Your task to perform on an android device: move a message to another label in the gmail app Image 0: 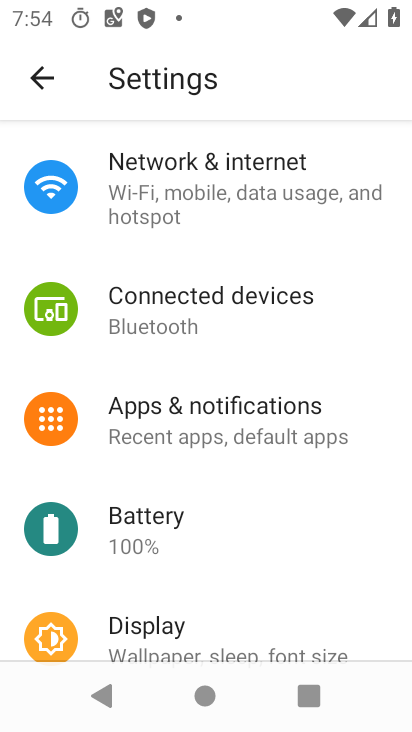
Step 0: press home button
Your task to perform on an android device: move a message to another label in the gmail app Image 1: 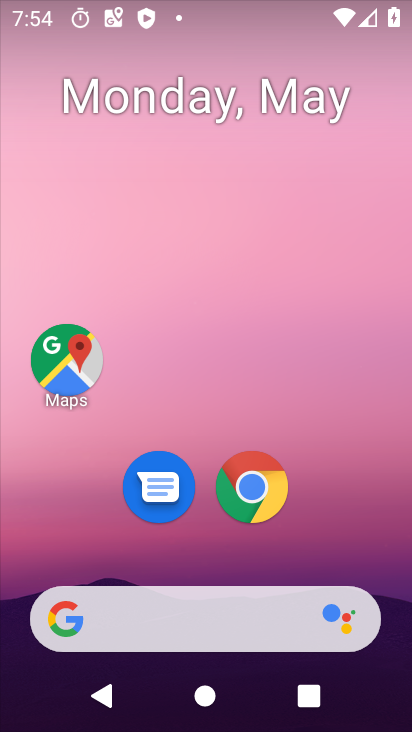
Step 1: drag from (234, 681) to (207, 134)
Your task to perform on an android device: move a message to another label in the gmail app Image 2: 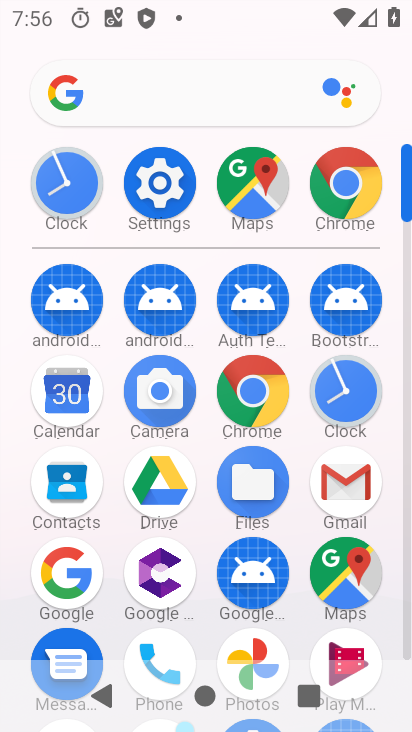
Step 2: click (381, 467)
Your task to perform on an android device: move a message to another label in the gmail app Image 3: 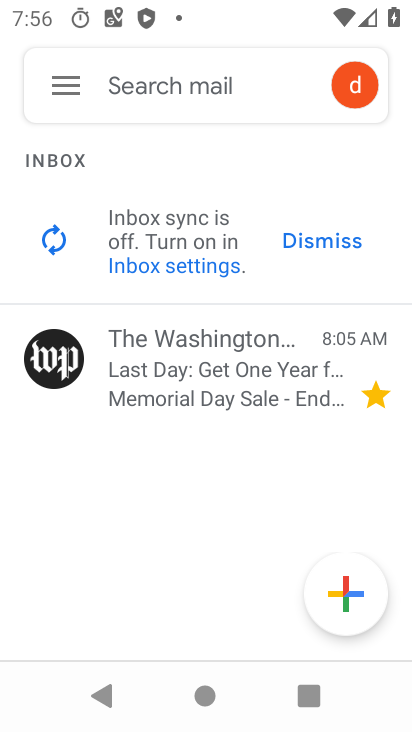
Step 3: click (73, 82)
Your task to perform on an android device: move a message to another label in the gmail app Image 4: 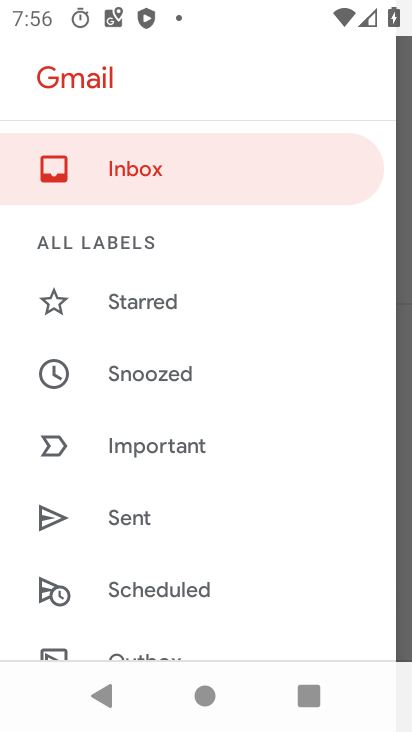
Step 4: drag from (171, 553) to (221, 14)
Your task to perform on an android device: move a message to another label in the gmail app Image 5: 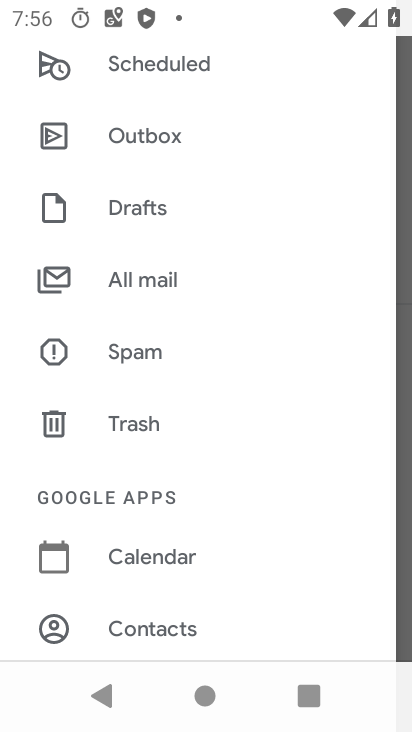
Step 5: drag from (198, 526) to (238, 310)
Your task to perform on an android device: move a message to another label in the gmail app Image 6: 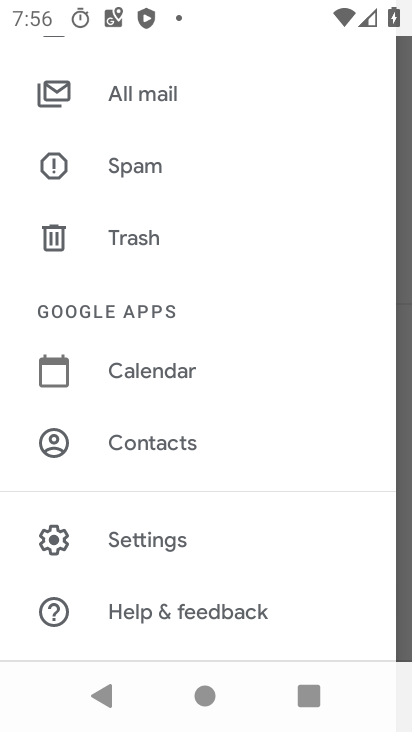
Step 6: click (146, 535)
Your task to perform on an android device: move a message to another label in the gmail app Image 7: 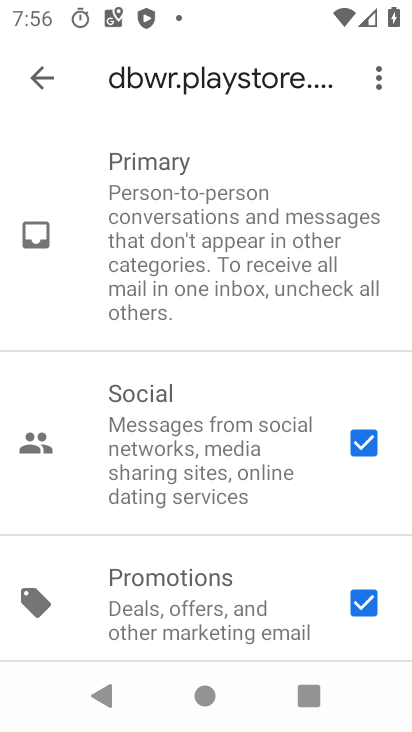
Step 7: click (37, 86)
Your task to perform on an android device: move a message to another label in the gmail app Image 8: 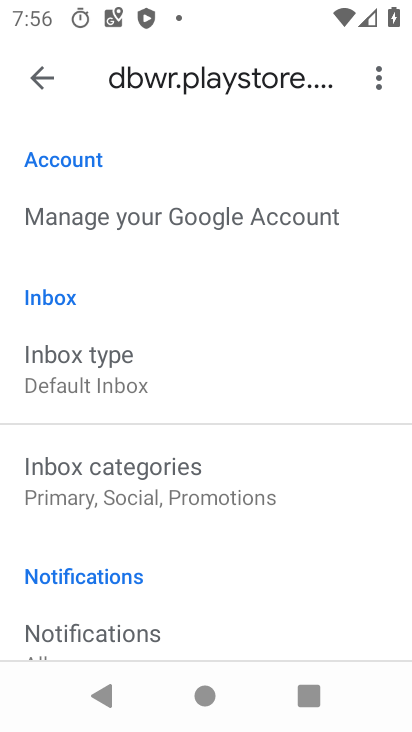
Step 8: drag from (174, 468) to (200, 270)
Your task to perform on an android device: move a message to another label in the gmail app Image 9: 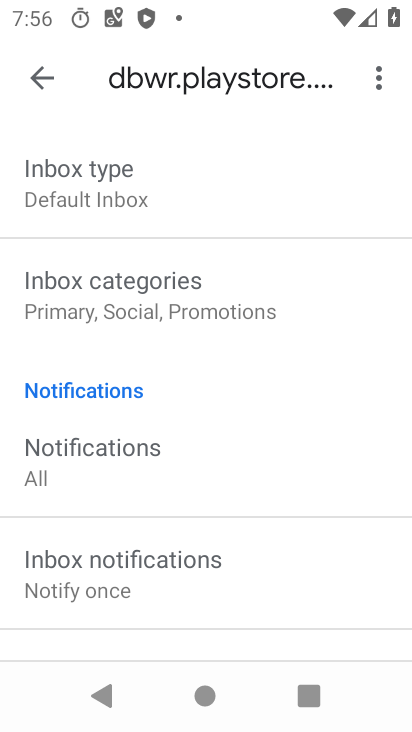
Step 9: drag from (201, 455) to (177, 235)
Your task to perform on an android device: move a message to another label in the gmail app Image 10: 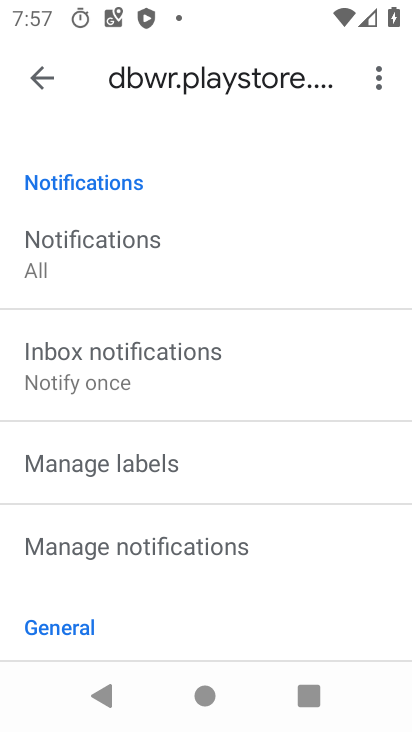
Step 10: click (123, 479)
Your task to perform on an android device: move a message to another label in the gmail app Image 11: 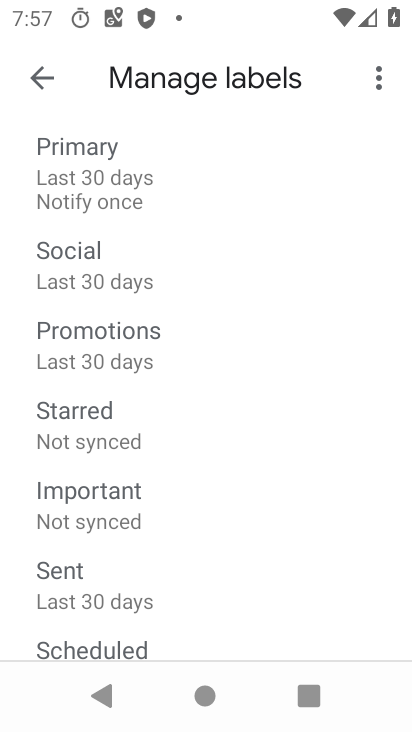
Step 11: click (116, 303)
Your task to perform on an android device: move a message to another label in the gmail app Image 12: 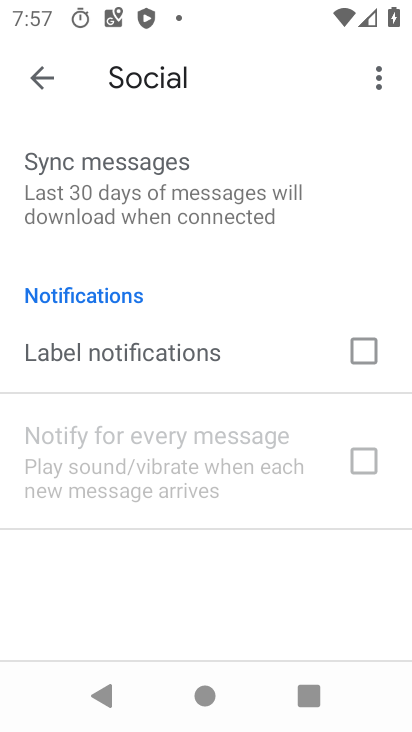
Step 12: task complete